Your task to perform on an android device: Show me recent news Image 0: 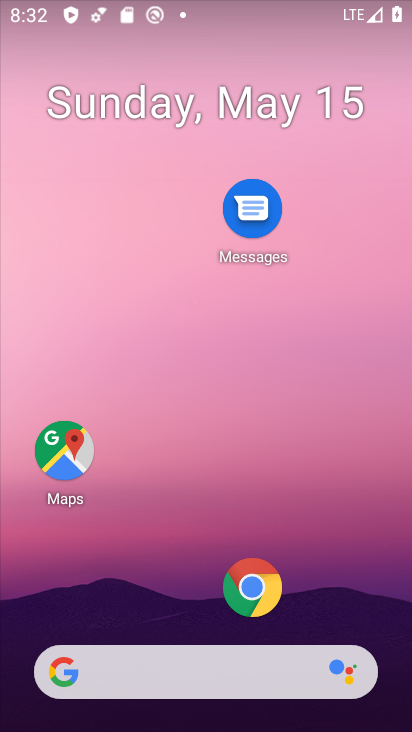
Step 0: click (246, 595)
Your task to perform on an android device: Show me recent news Image 1: 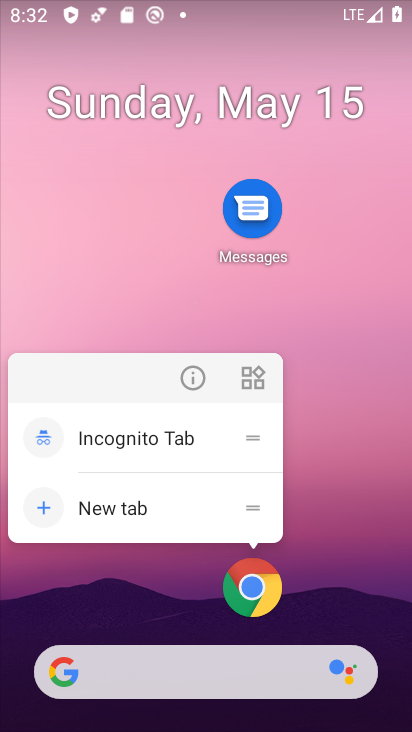
Step 1: click (249, 581)
Your task to perform on an android device: Show me recent news Image 2: 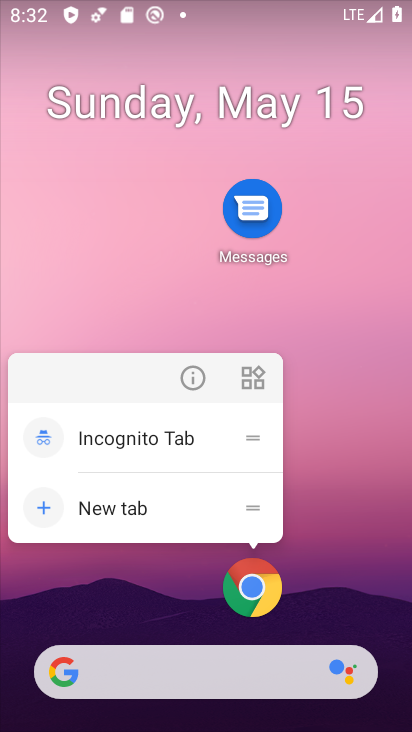
Step 2: click (246, 582)
Your task to perform on an android device: Show me recent news Image 3: 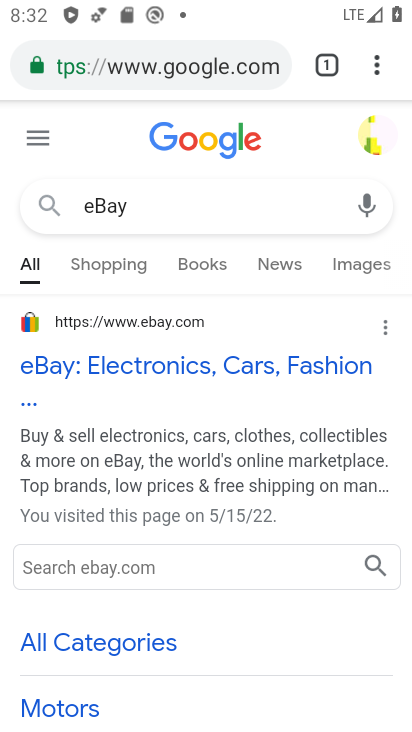
Step 3: click (219, 57)
Your task to perform on an android device: Show me recent news Image 4: 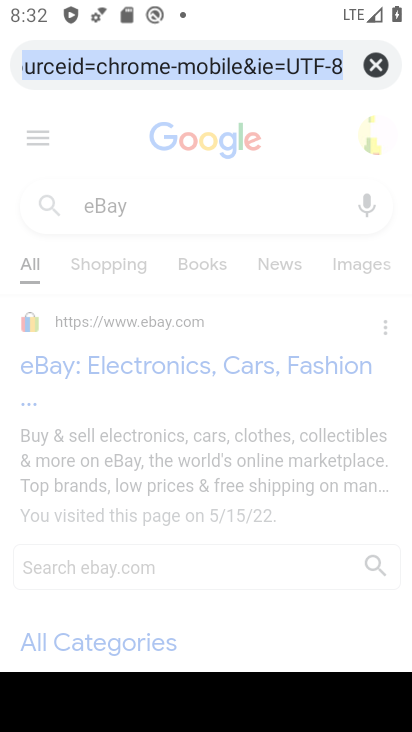
Step 4: type "recent news"
Your task to perform on an android device: Show me recent news Image 5: 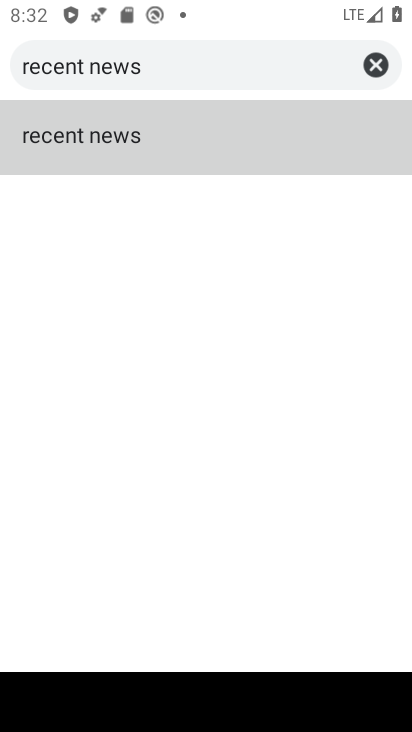
Step 5: click (151, 133)
Your task to perform on an android device: Show me recent news Image 6: 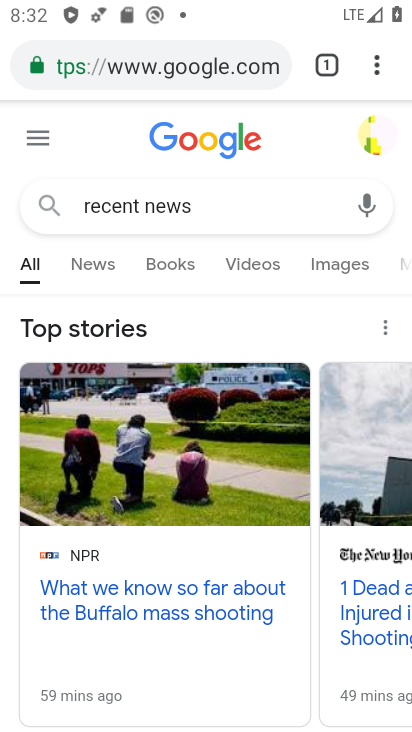
Step 6: task complete